Your task to perform on an android device: Open Chrome and go to settings Image 0: 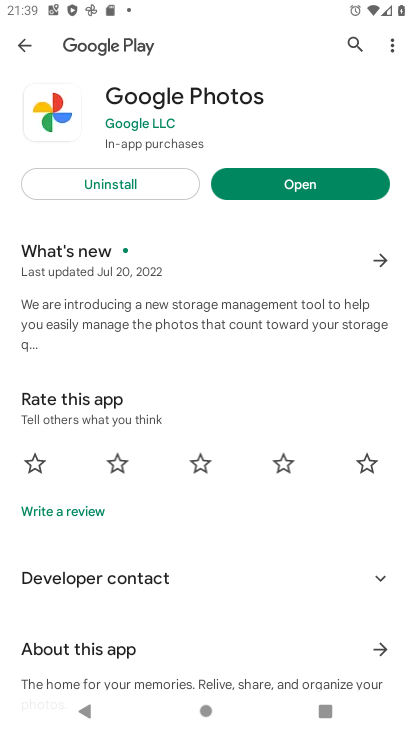
Step 0: press home button
Your task to perform on an android device: Open Chrome and go to settings Image 1: 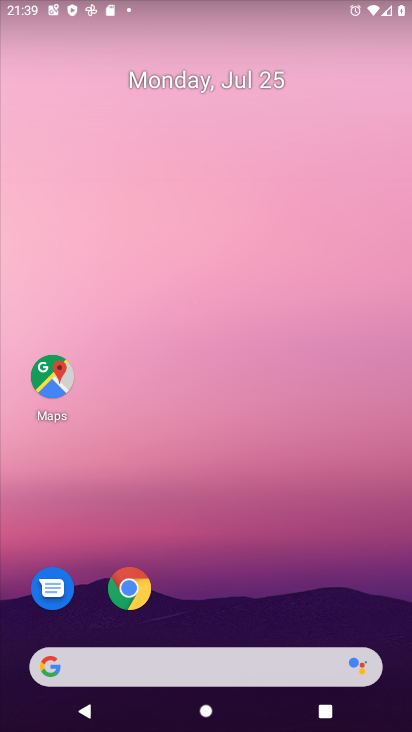
Step 1: click (124, 591)
Your task to perform on an android device: Open Chrome and go to settings Image 2: 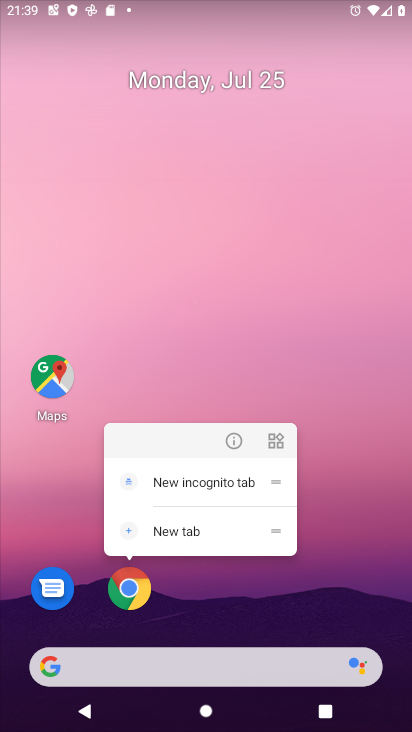
Step 2: click (122, 590)
Your task to perform on an android device: Open Chrome and go to settings Image 3: 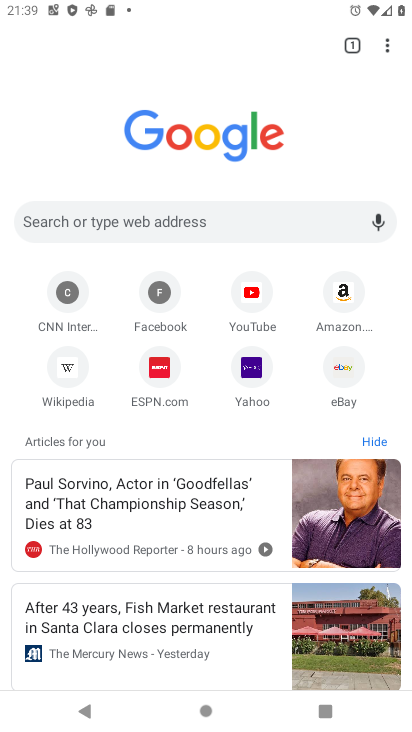
Step 3: click (390, 44)
Your task to perform on an android device: Open Chrome and go to settings Image 4: 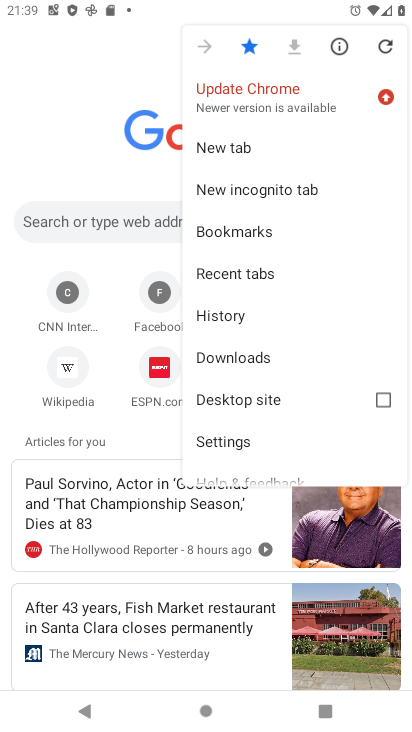
Step 4: click (221, 442)
Your task to perform on an android device: Open Chrome and go to settings Image 5: 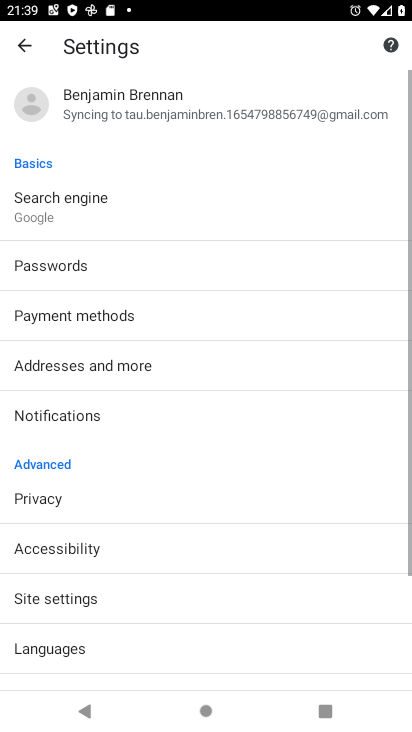
Step 5: task complete